Your task to perform on an android device: allow notifications from all sites in the chrome app Image 0: 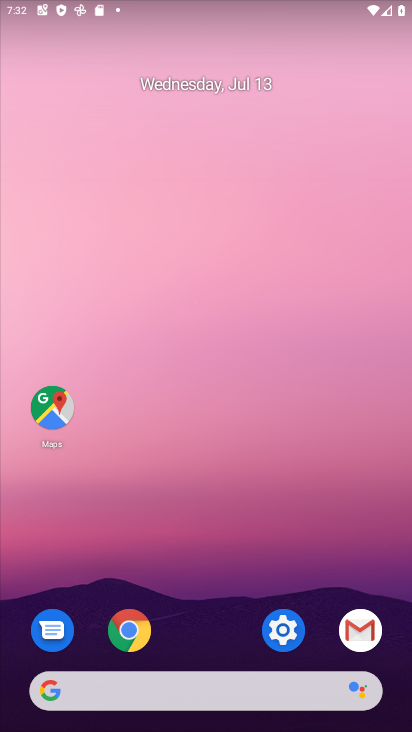
Step 0: click (135, 621)
Your task to perform on an android device: allow notifications from all sites in the chrome app Image 1: 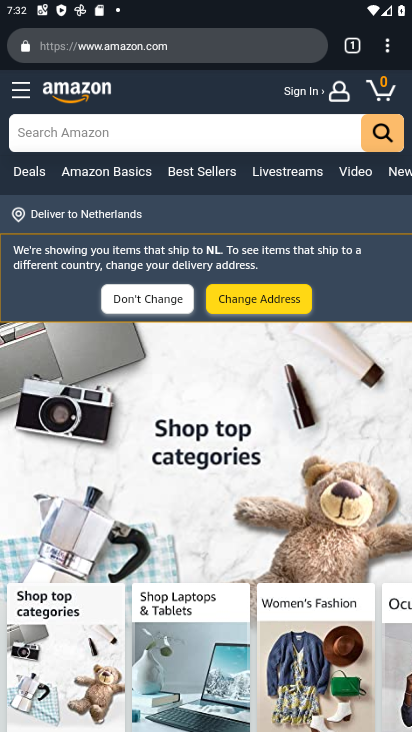
Step 1: click (387, 55)
Your task to perform on an android device: allow notifications from all sites in the chrome app Image 2: 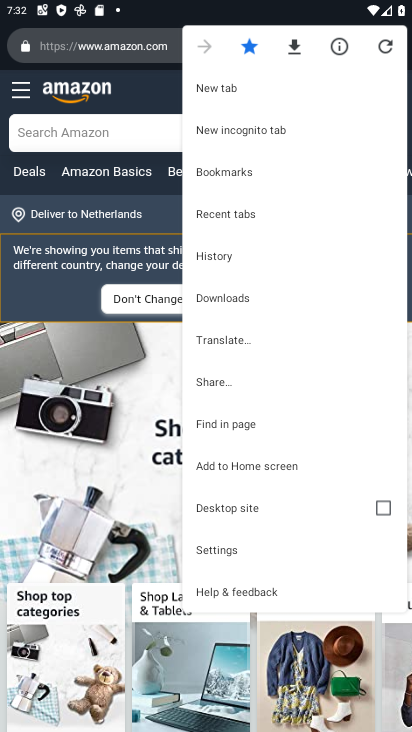
Step 2: click (219, 544)
Your task to perform on an android device: allow notifications from all sites in the chrome app Image 3: 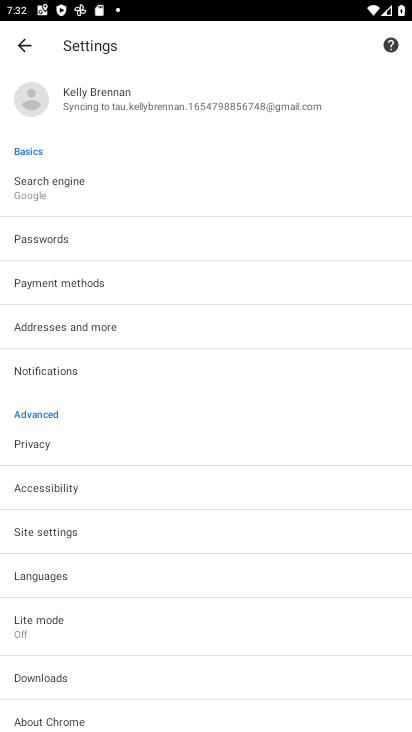
Step 3: click (66, 528)
Your task to perform on an android device: allow notifications from all sites in the chrome app Image 4: 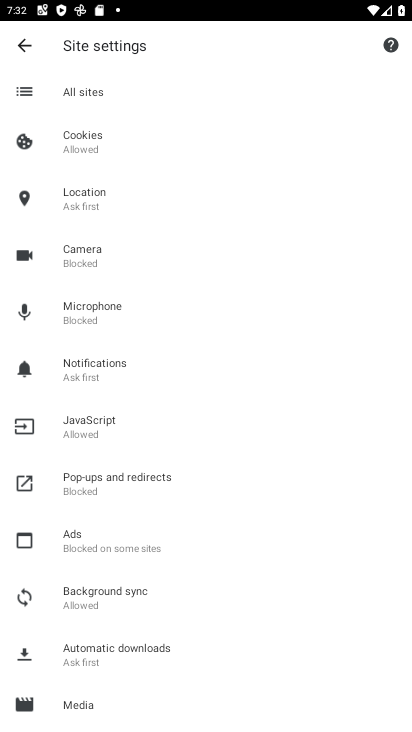
Step 4: click (97, 369)
Your task to perform on an android device: allow notifications from all sites in the chrome app Image 5: 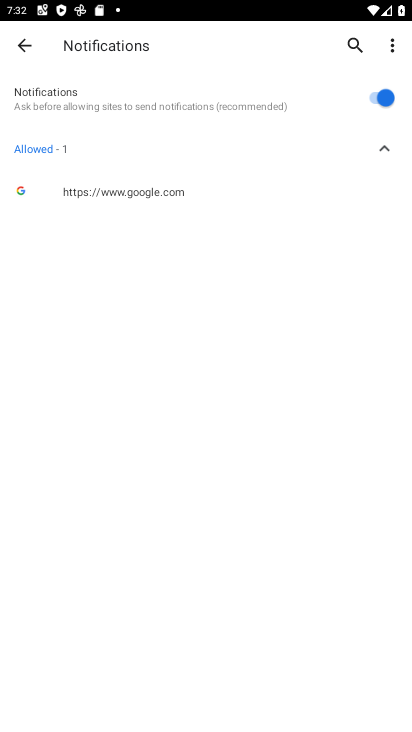
Step 5: click (378, 97)
Your task to perform on an android device: allow notifications from all sites in the chrome app Image 6: 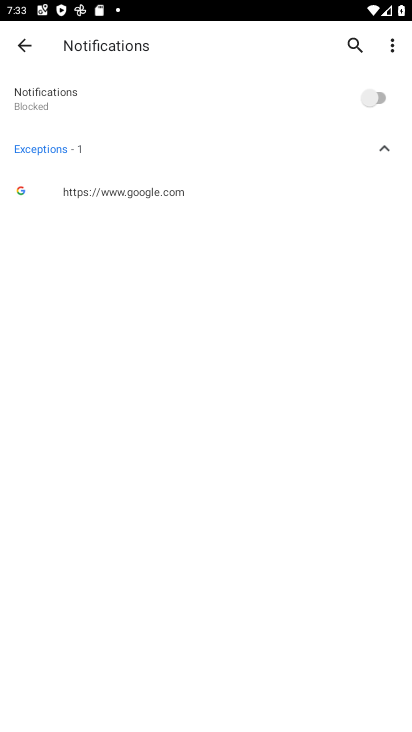
Step 6: task complete